Your task to perform on an android device: Open Google Image 0: 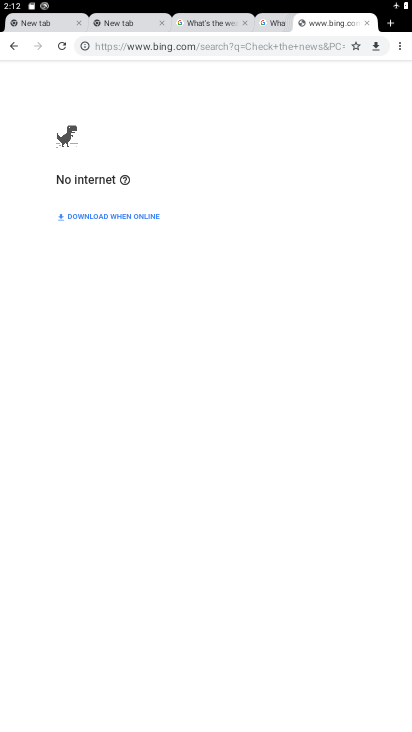
Step 0: press home button
Your task to perform on an android device: Open Google Image 1: 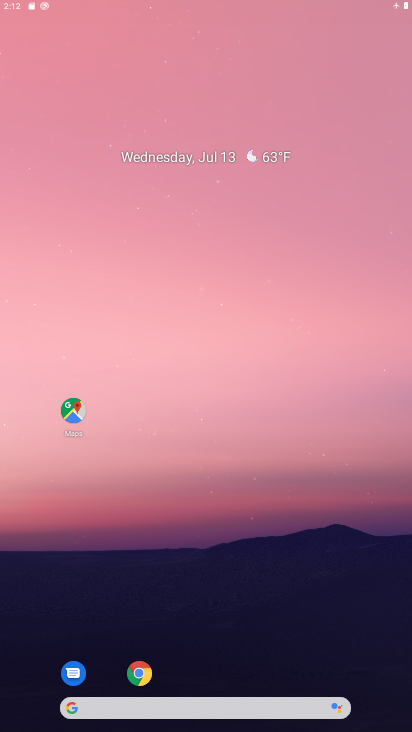
Step 1: drag from (180, 601) to (220, 289)
Your task to perform on an android device: Open Google Image 2: 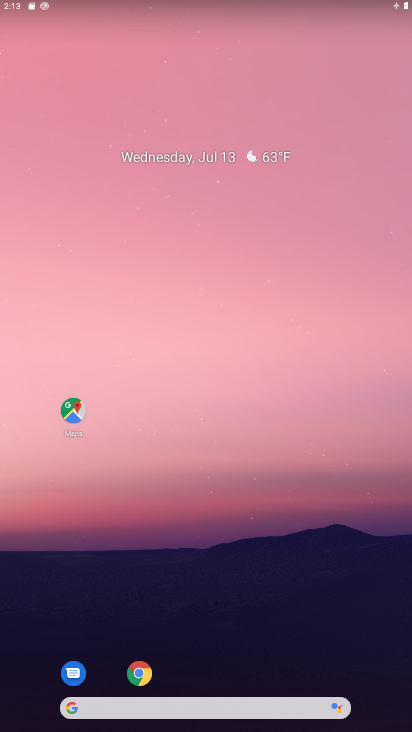
Step 2: drag from (287, 707) to (278, 443)
Your task to perform on an android device: Open Google Image 3: 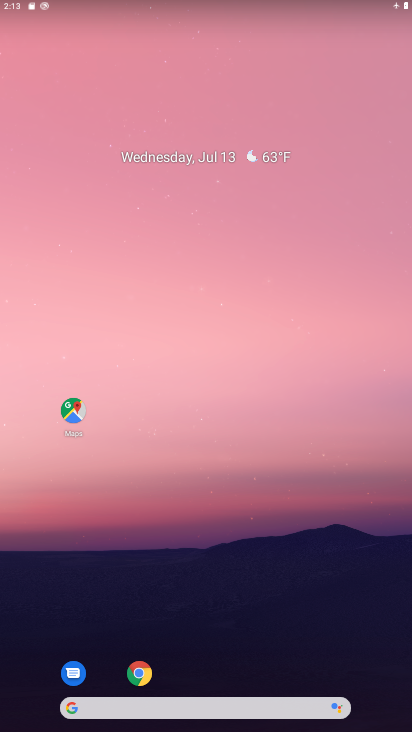
Step 3: drag from (235, 656) to (250, 420)
Your task to perform on an android device: Open Google Image 4: 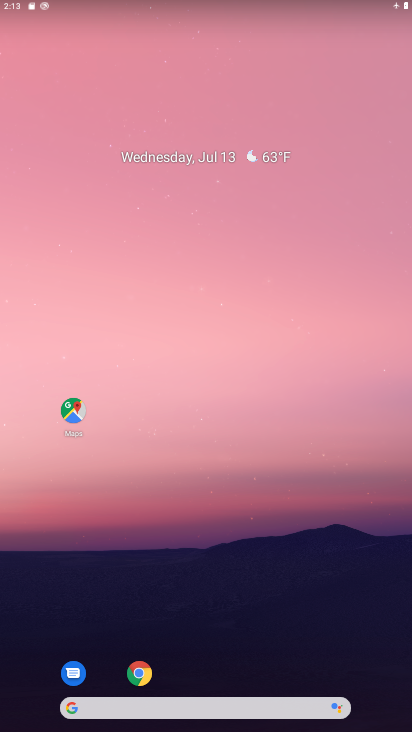
Step 4: drag from (215, 675) to (237, 398)
Your task to perform on an android device: Open Google Image 5: 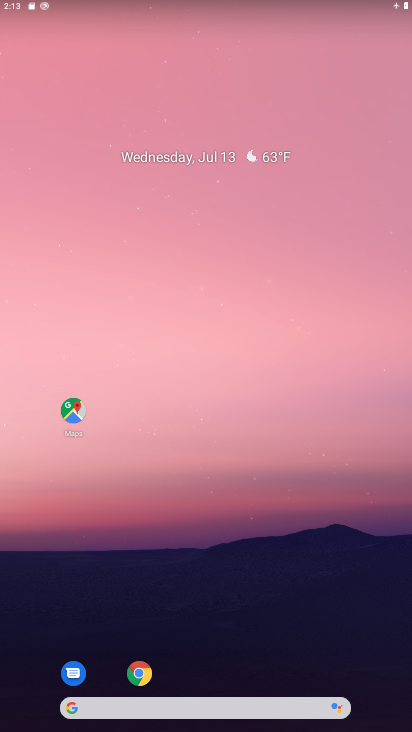
Step 5: drag from (192, 653) to (213, 399)
Your task to perform on an android device: Open Google Image 6: 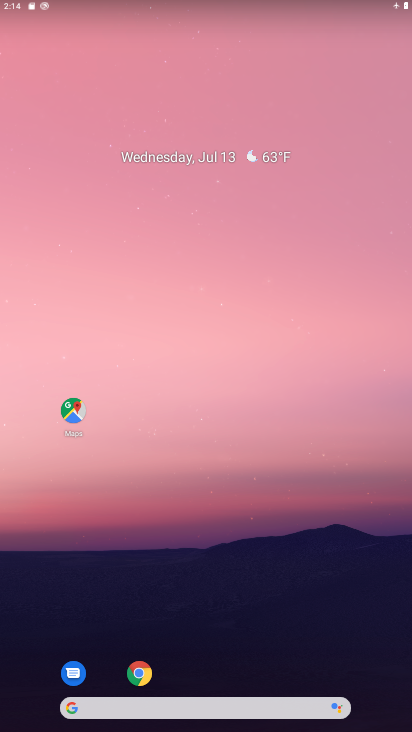
Step 6: drag from (258, 661) to (248, 286)
Your task to perform on an android device: Open Google Image 7: 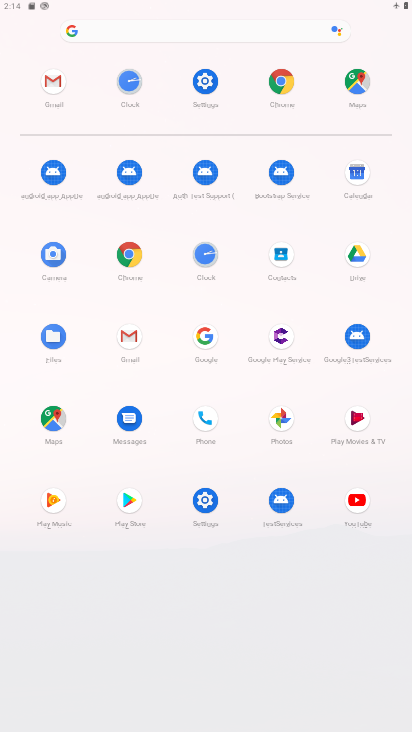
Step 7: click (209, 333)
Your task to perform on an android device: Open Google Image 8: 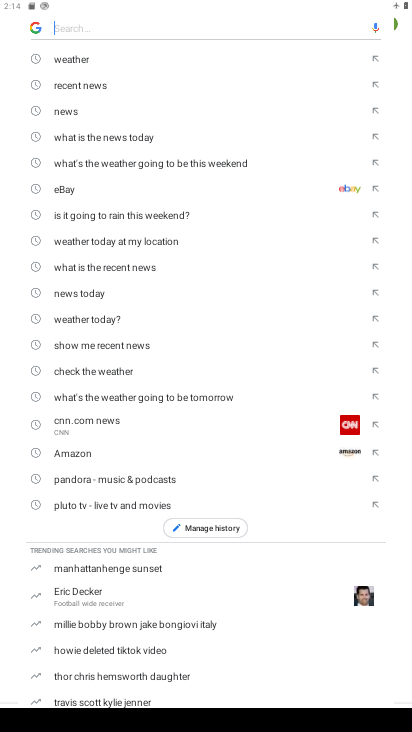
Step 8: task complete